Your task to perform on an android device: Open Android settings Image 0: 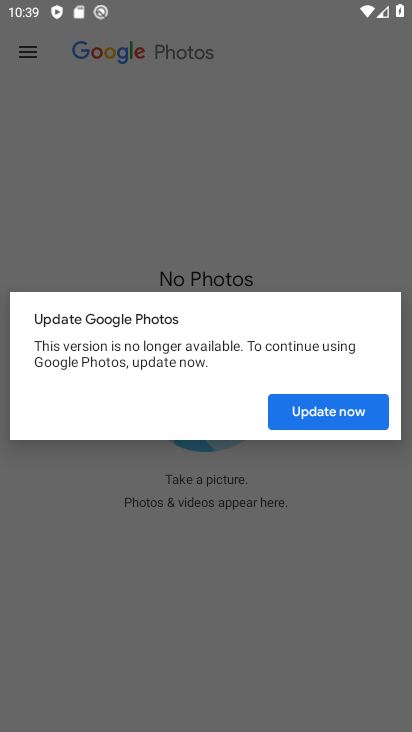
Step 0: press home button
Your task to perform on an android device: Open Android settings Image 1: 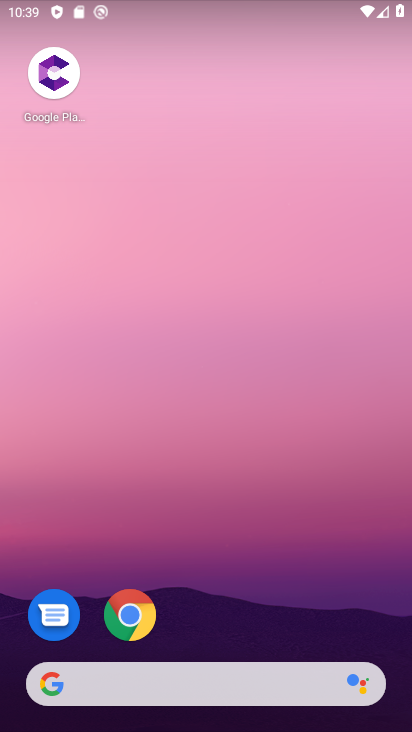
Step 1: drag from (240, 652) to (149, 39)
Your task to perform on an android device: Open Android settings Image 2: 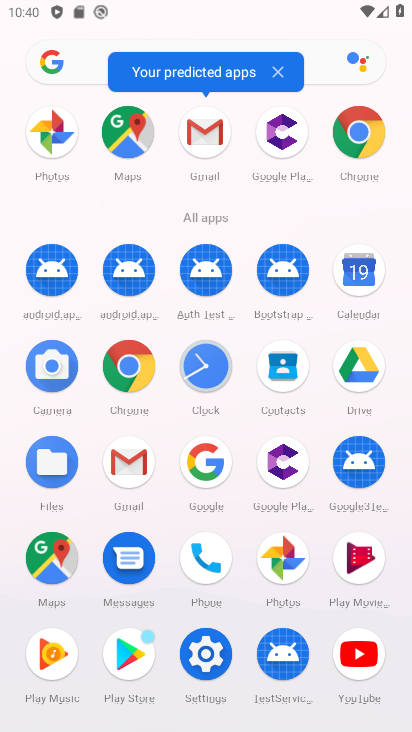
Step 2: click (215, 642)
Your task to perform on an android device: Open Android settings Image 3: 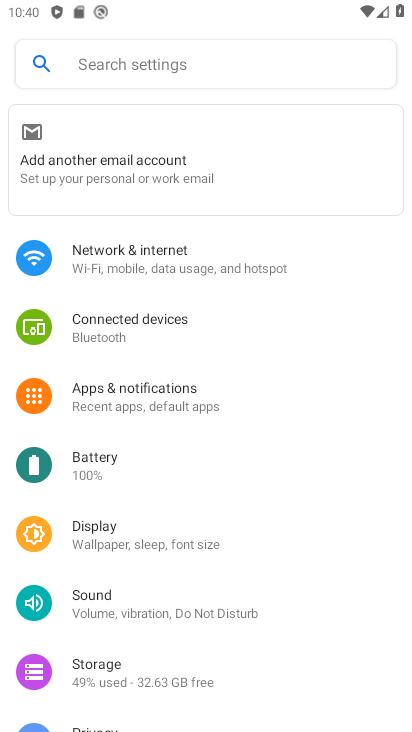
Step 3: drag from (318, 337) to (260, 46)
Your task to perform on an android device: Open Android settings Image 4: 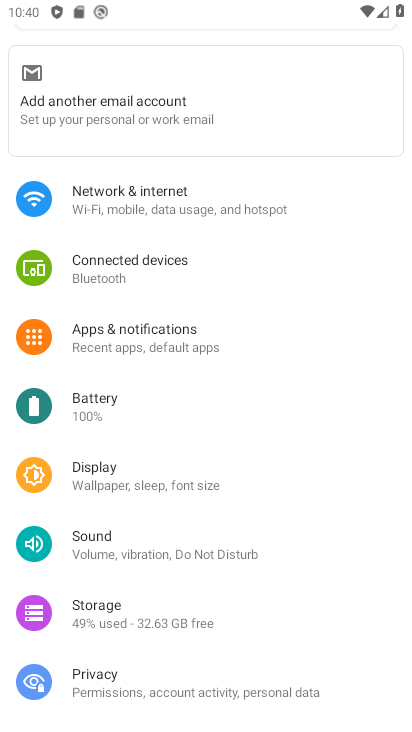
Step 4: drag from (129, 680) to (176, 203)
Your task to perform on an android device: Open Android settings Image 5: 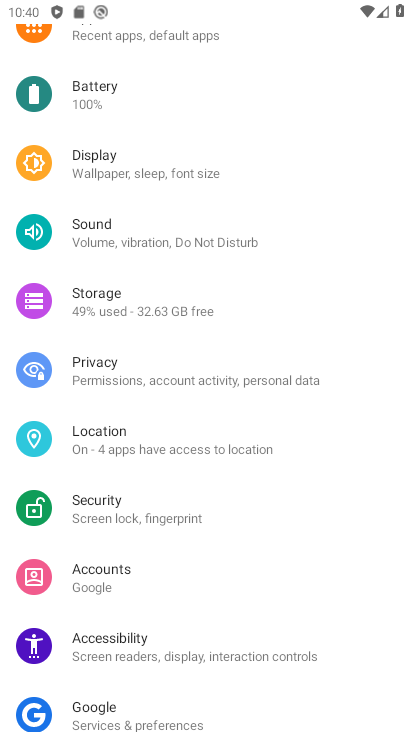
Step 5: drag from (165, 665) to (149, 182)
Your task to perform on an android device: Open Android settings Image 6: 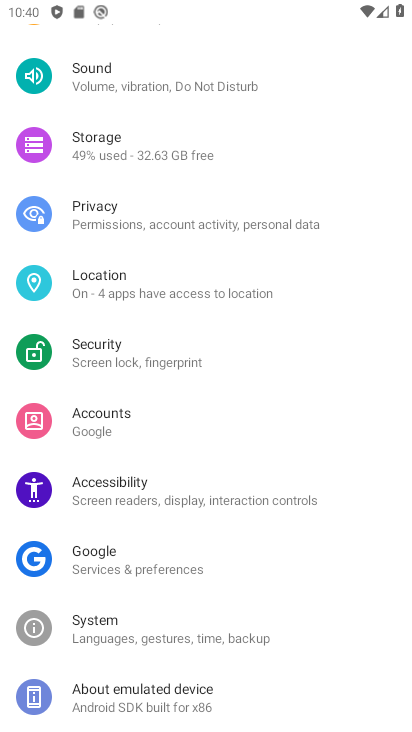
Step 6: click (160, 707)
Your task to perform on an android device: Open Android settings Image 7: 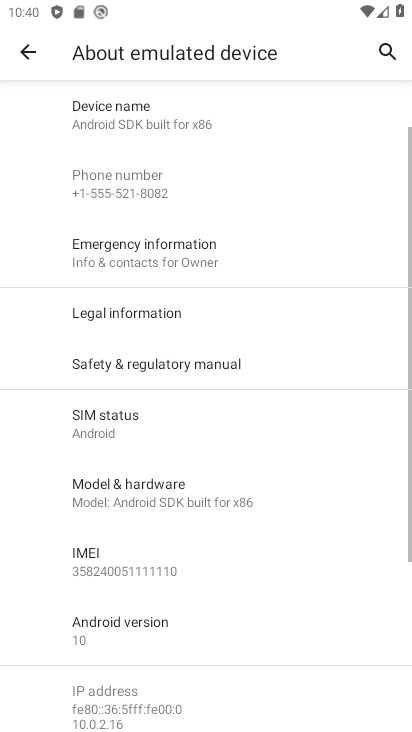
Step 7: click (209, 621)
Your task to perform on an android device: Open Android settings Image 8: 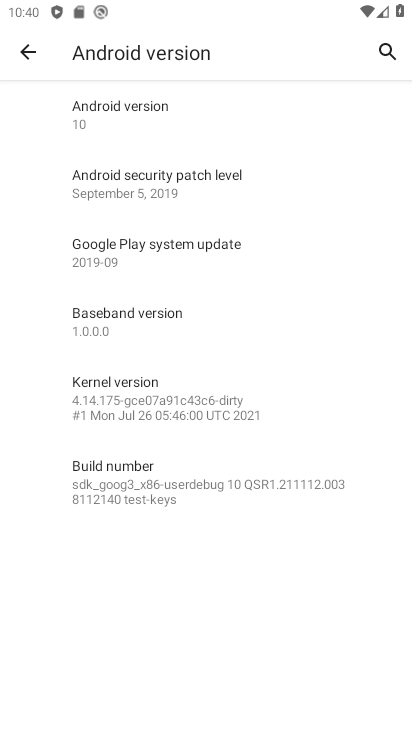
Step 8: task complete